Your task to perform on an android device: Open my contact list Image 0: 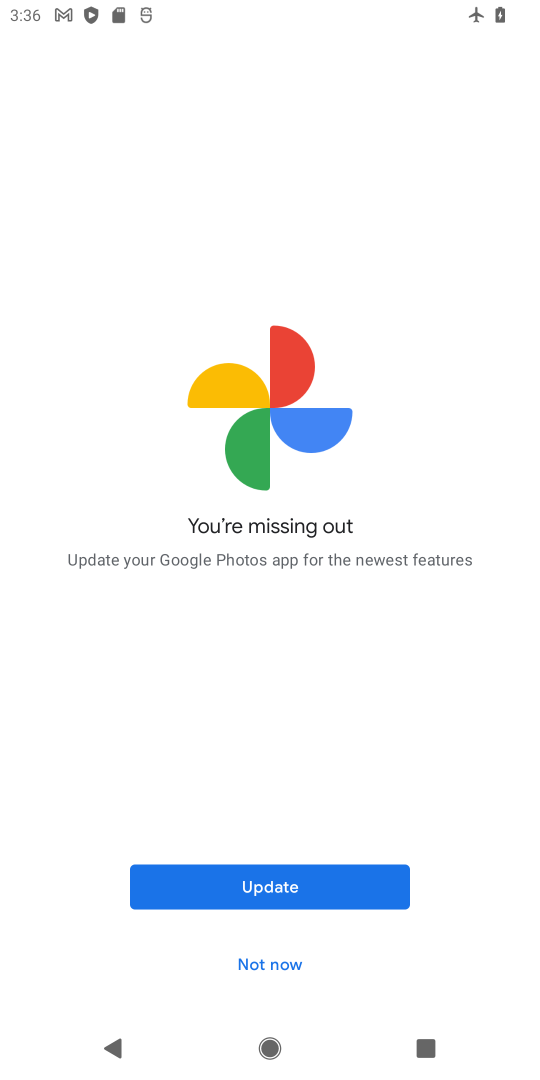
Step 0: press home button
Your task to perform on an android device: Open my contact list Image 1: 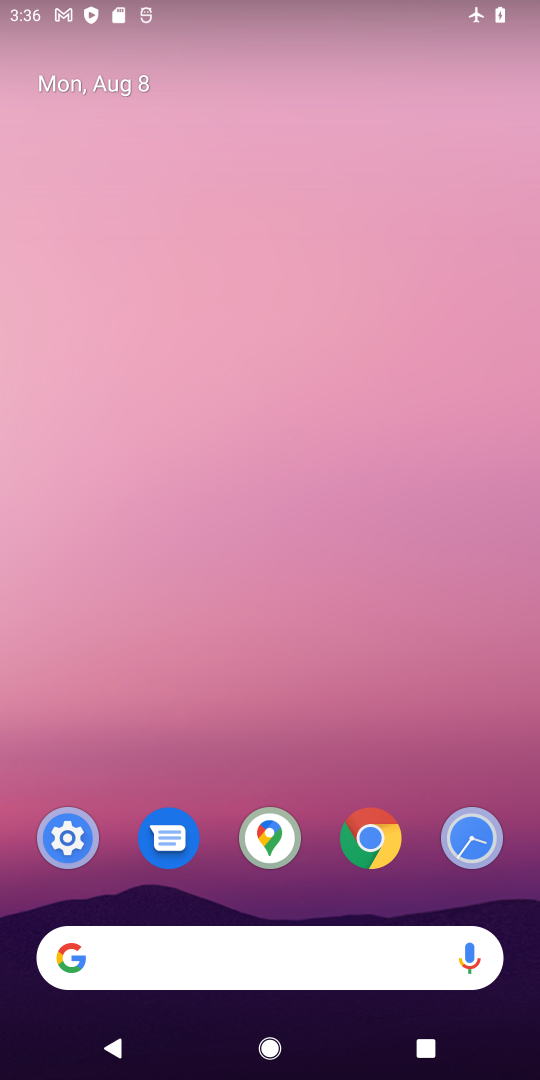
Step 1: drag from (270, 979) to (338, 332)
Your task to perform on an android device: Open my contact list Image 2: 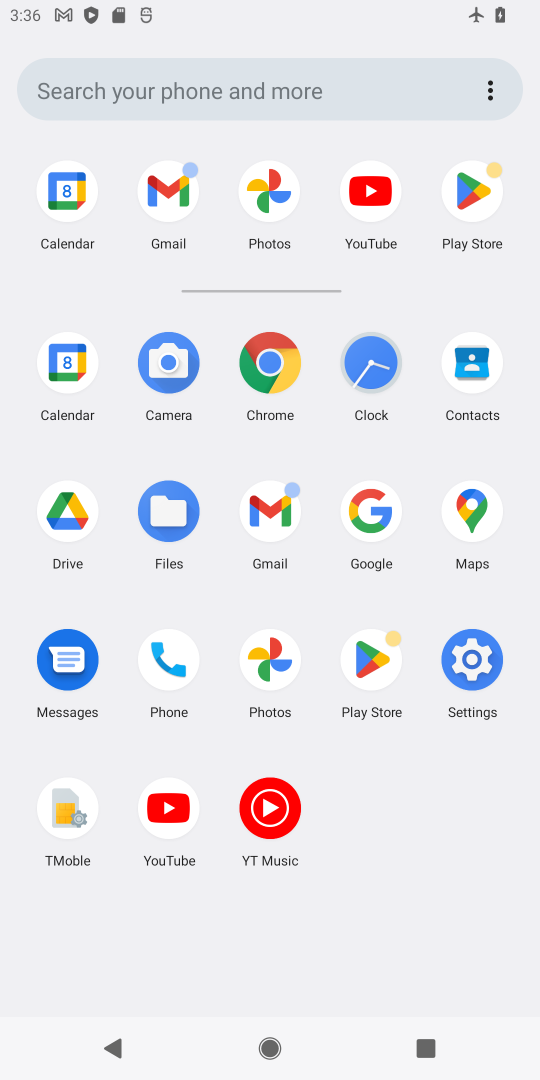
Step 2: click (470, 363)
Your task to perform on an android device: Open my contact list Image 3: 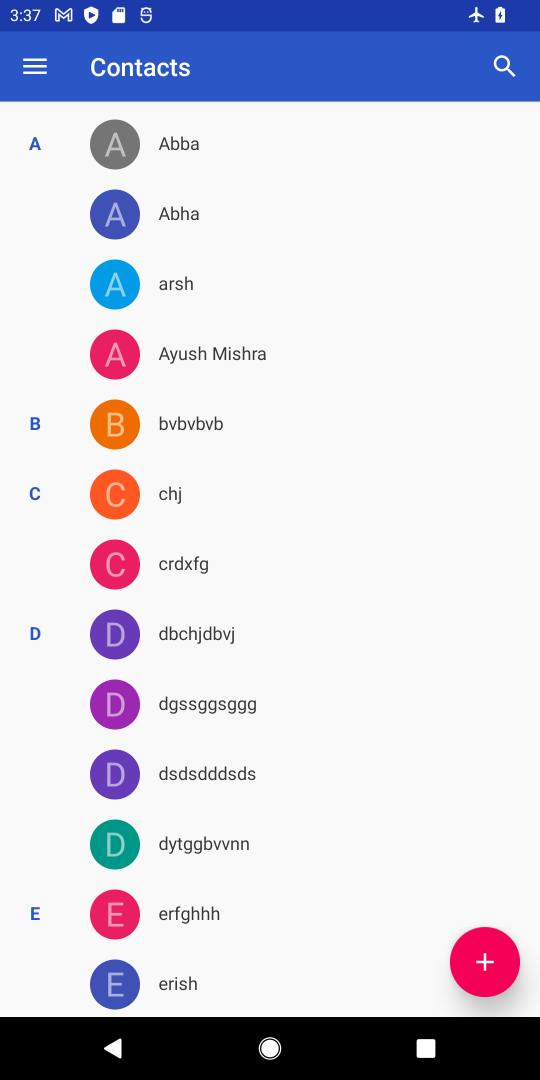
Step 3: task complete